Your task to perform on an android device: toggle sleep mode Image 0: 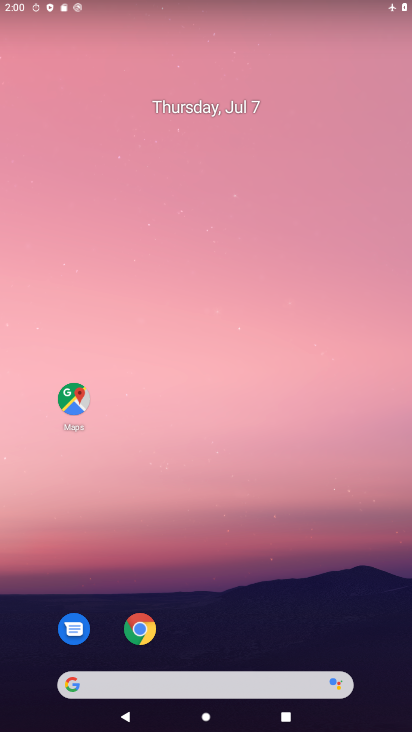
Step 0: drag from (286, 593) to (276, 85)
Your task to perform on an android device: toggle sleep mode Image 1: 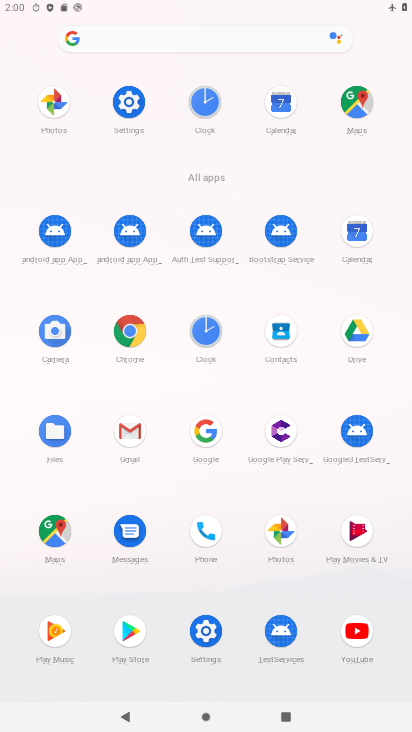
Step 1: click (133, 92)
Your task to perform on an android device: toggle sleep mode Image 2: 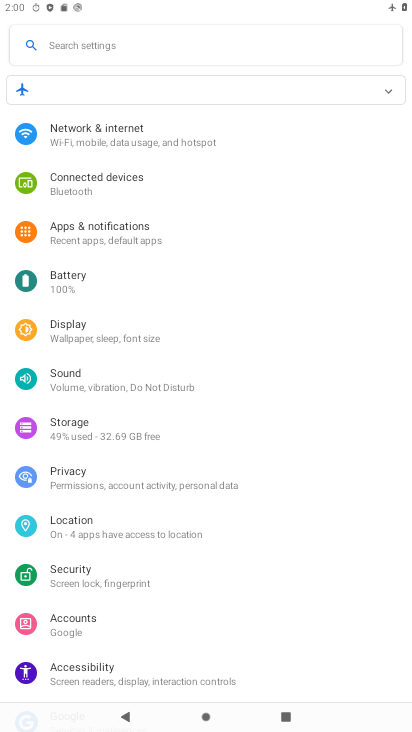
Step 2: drag from (131, 599) to (147, 233)
Your task to perform on an android device: toggle sleep mode Image 3: 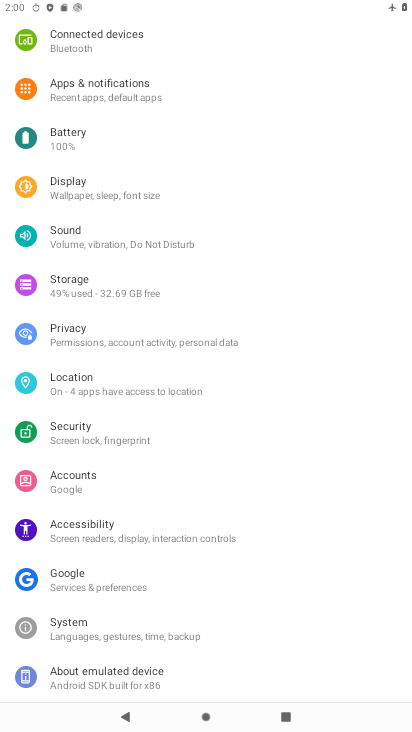
Step 3: click (66, 179)
Your task to perform on an android device: toggle sleep mode Image 4: 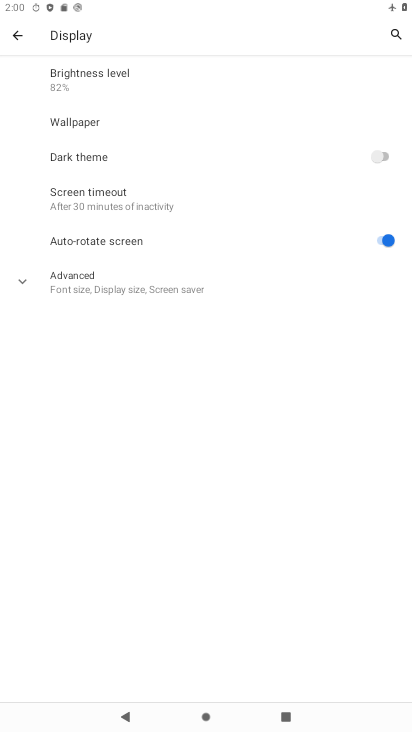
Step 4: click (124, 204)
Your task to perform on an android device: toggle sleep mode Image 5: 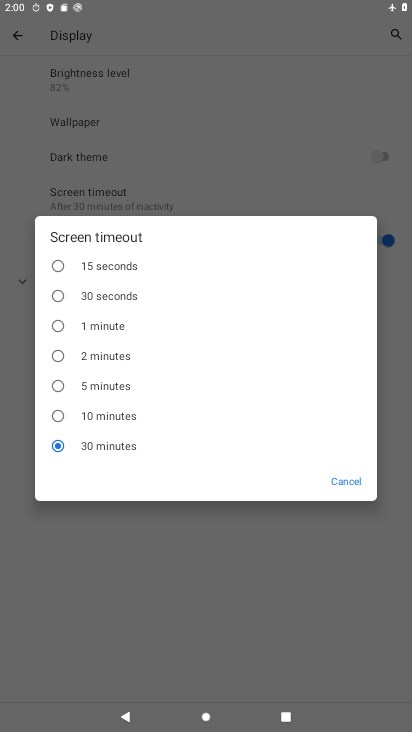
Step 5: click (114, 358)
Your task to perform on an android device: toggle sleep mode Image 6: 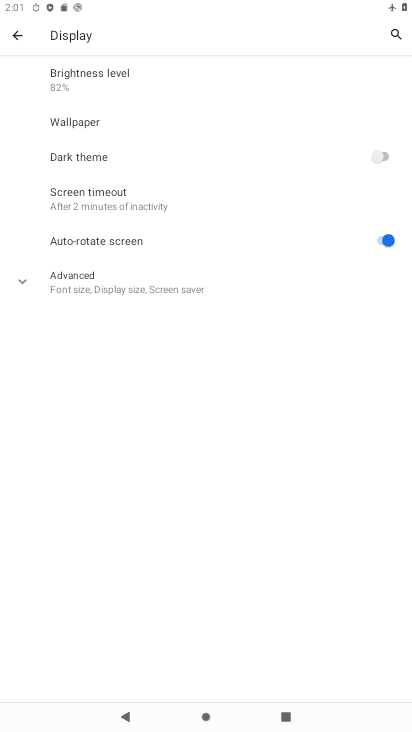
Step 6: task complete